Your task to perform on an android device: Open Amazon Image 0: 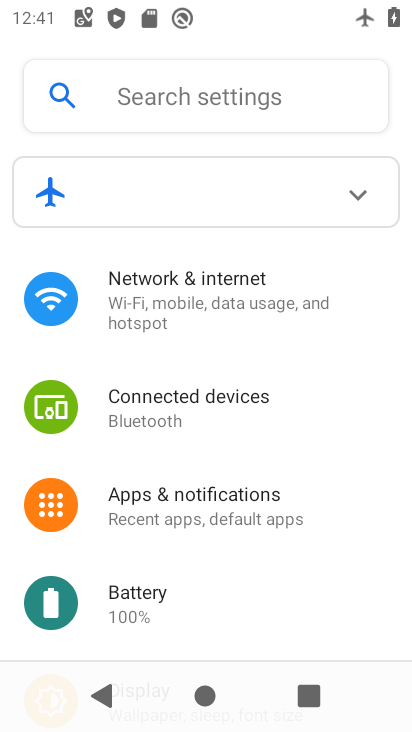
Step 0: press home button
Your task to perform on an android device: Open Amazon Image 1: 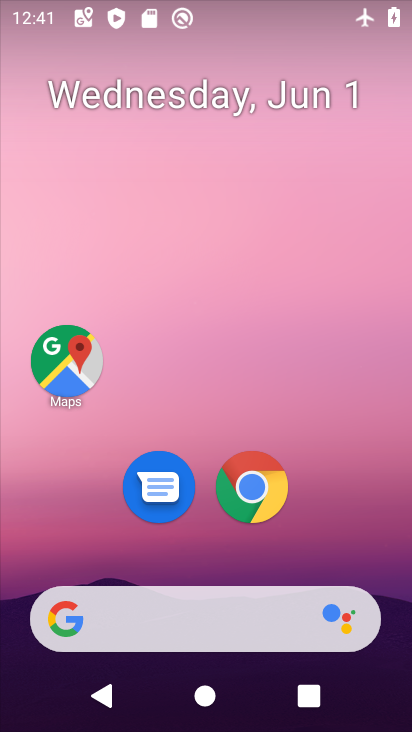
Step 1: click (231, 496)
Your task to perform on an android device: Open Amazon Image 2: 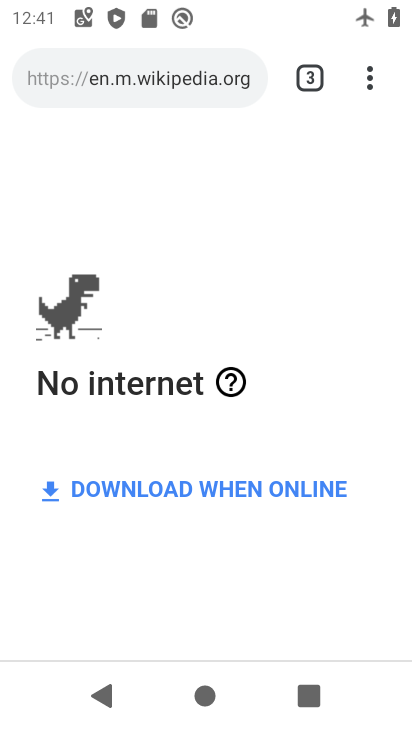
Step 2: click (369, 57)
Your task to perform on an android device: Open Amazon Image 3: 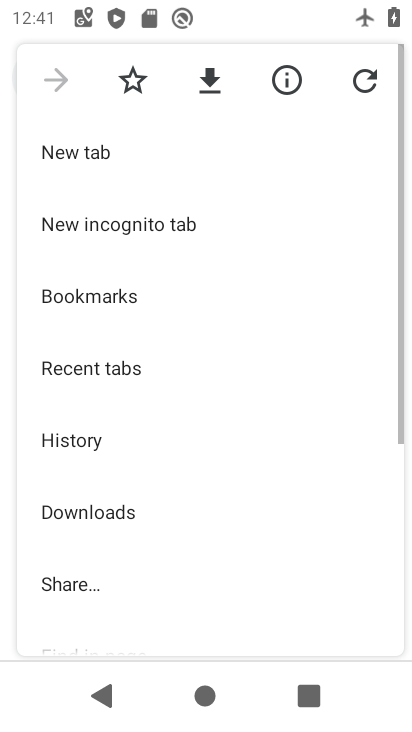
Step 3: click (93, 156)
Your task to perform on an android device: Open Amazon Image 4: 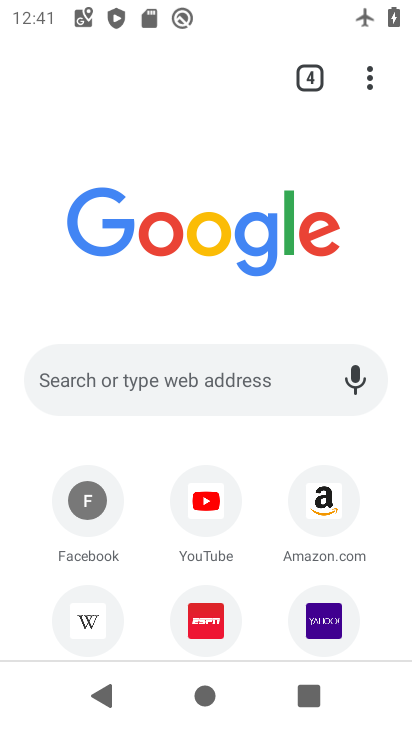
Step 4: click (345, 494)
Your task to perform on an android device: Open Amazon Image 5: 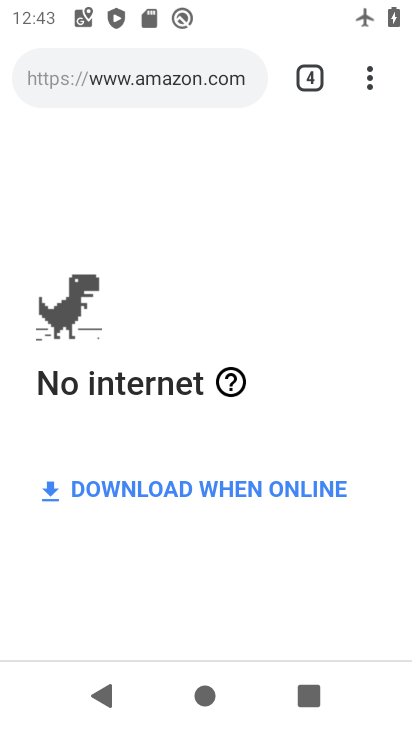
Step 5: task complete